Your task to perform on an android device: uninstall "Cash App" Image 0: 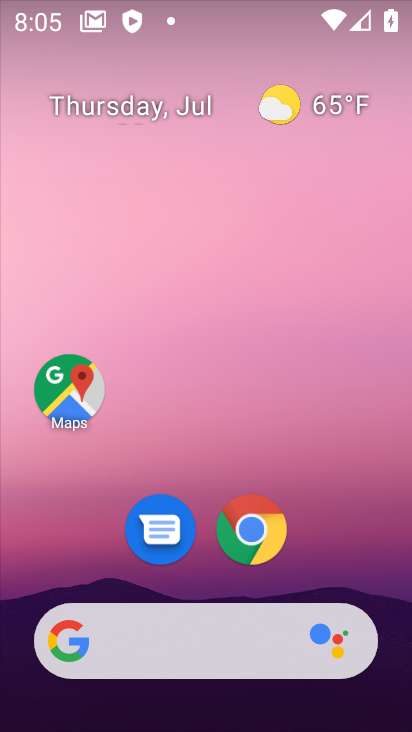
Step 0: drag from (318, 591) to (357, 23)
Your task to perform on an android device: uninstall "Cash App" Image 1: 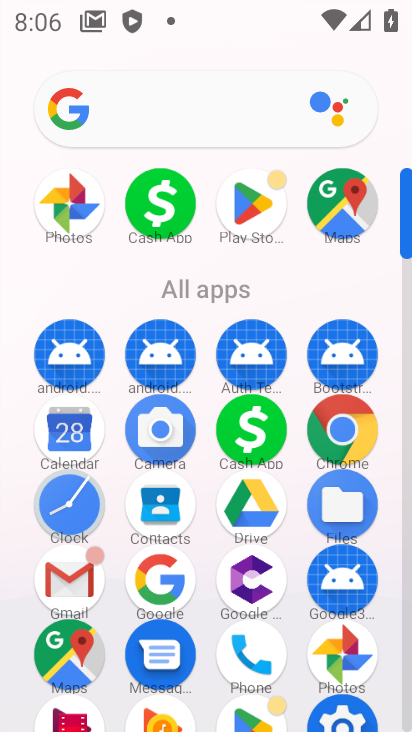
Step 1: click (167, 208)
Your task to perform on an android device: uninstall "Cash App" Image 2: 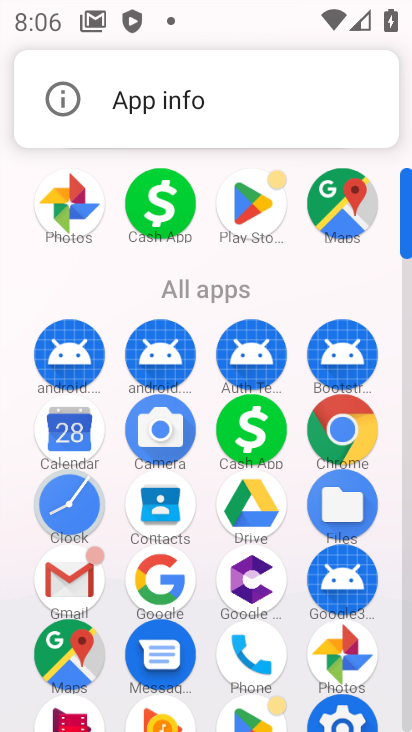
Step 2: click (161, 109)
Your task to perform on an android device: uninstall "Cash App" Image 3: 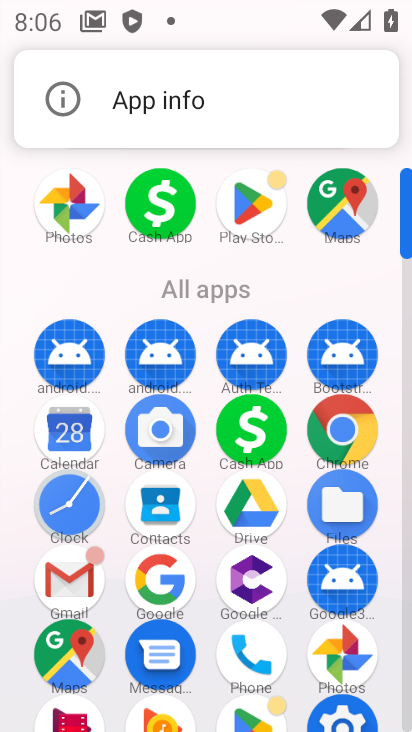
Step 3: click (146, 107)
Your task to perform on an android device: uninstall "Cash App" Image 4: 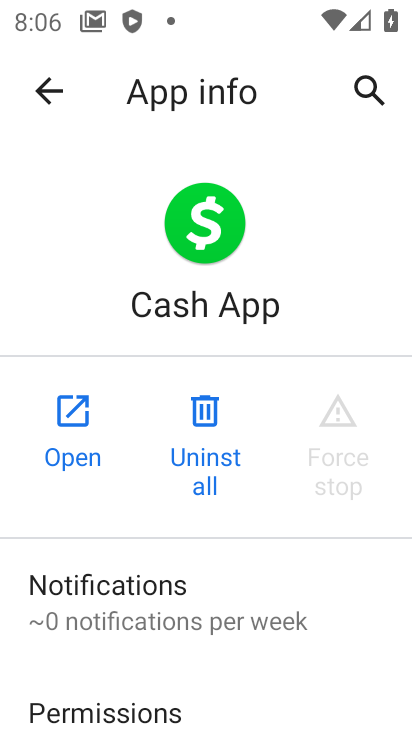
Step 4: click (206, 438)
Your task to perform on an android device: uninstall "Cash App" Image 5: 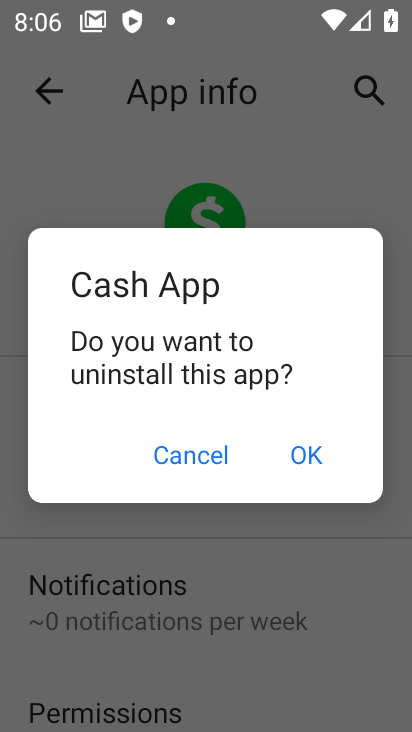
Step 5: click (312, 451)
Your task to perform on an android device: uninstall "Cash App" Image 6: 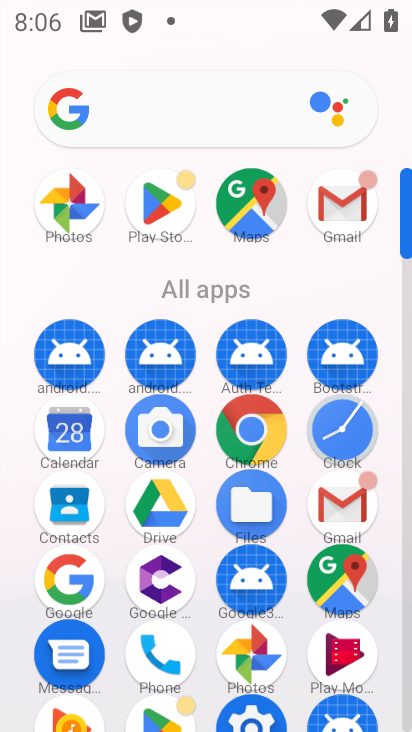
Step 6: task complete